Your task to perform on an android device: turn on the 12-hour format for clock Image 0: 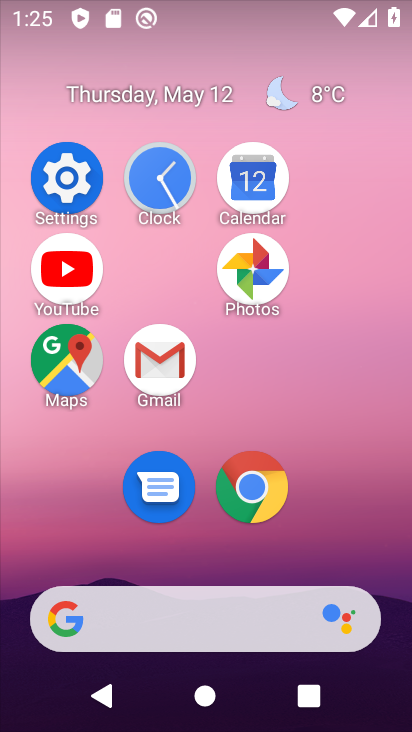
Step 0: click (187, 179)
Your task to perform on an android device: turn on the 12-hour format for clock Image 1: 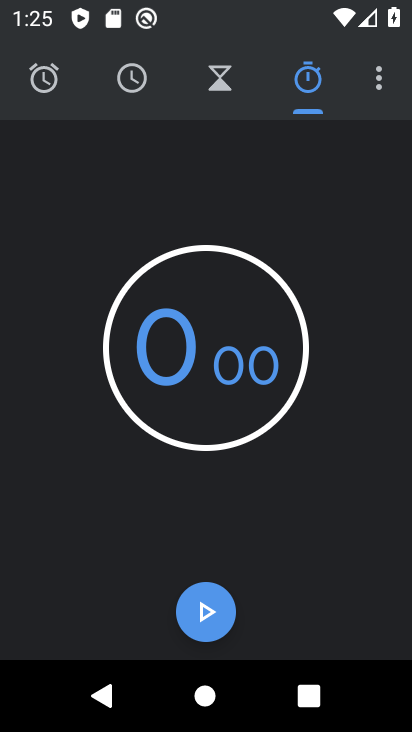
Step 1: click (367, 93)
Your task to perform on an android device: turn on the 12-hour format for clock Image 2: 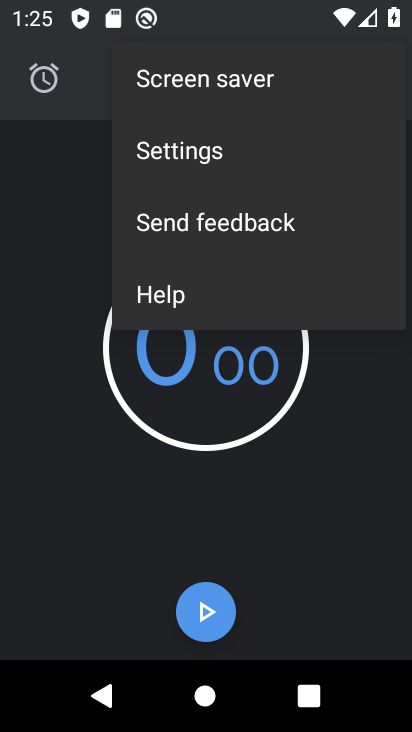
Step 2: click (215, 180)
Your task to perform on an android device: turn on the 12-hour format for clock Image 3: 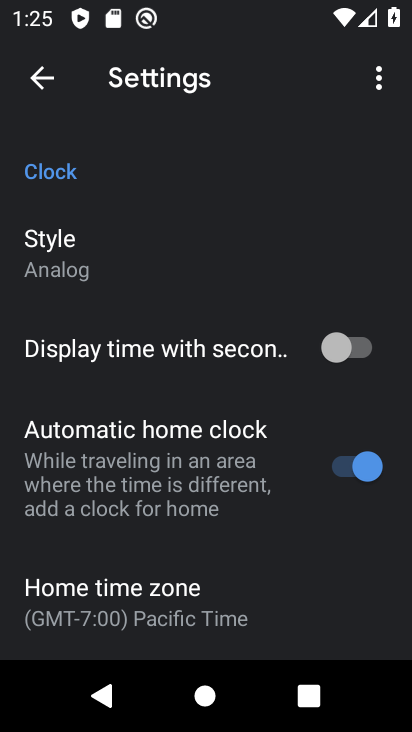
Step 3: drag from (229, 526) to (277, 161)
Your task to perform on an android device: turn on the 12-hour format for clock Image 4: 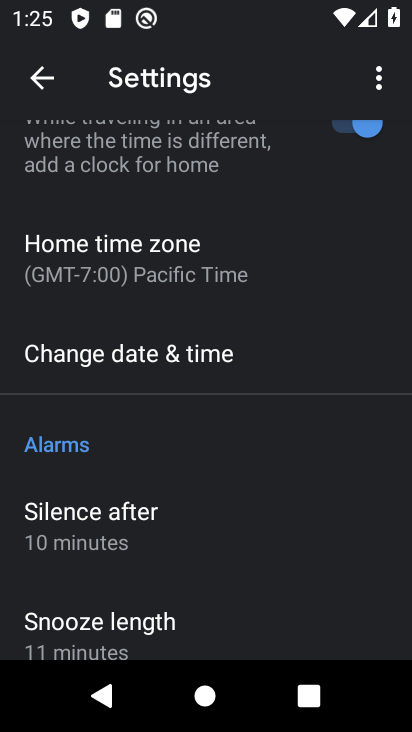
Step 4: click (202, 353)
Your task to perform on an android device: turn on the 12-hour format for clock Image 5: 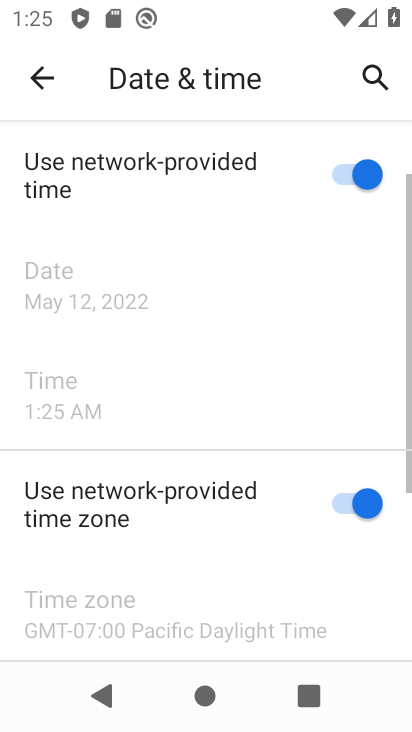
Step 5: task complete